Your task to perform on an android device: Is it going to rain today? Image 0: 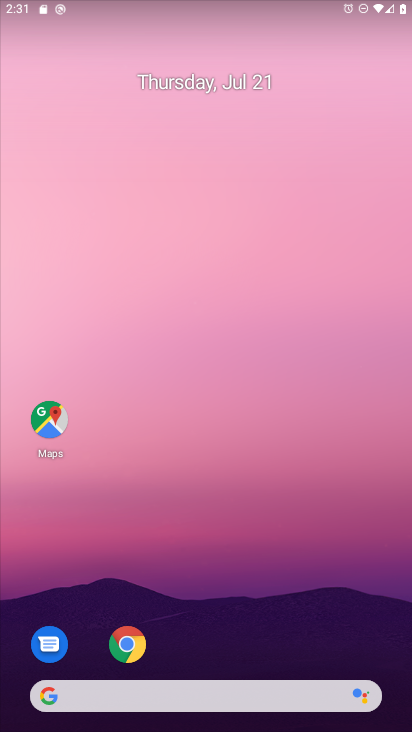
Step 0: drag from (179, 669) to (261, 179)
Your task to perform on an android device: Is it going to rain today? Image 1: 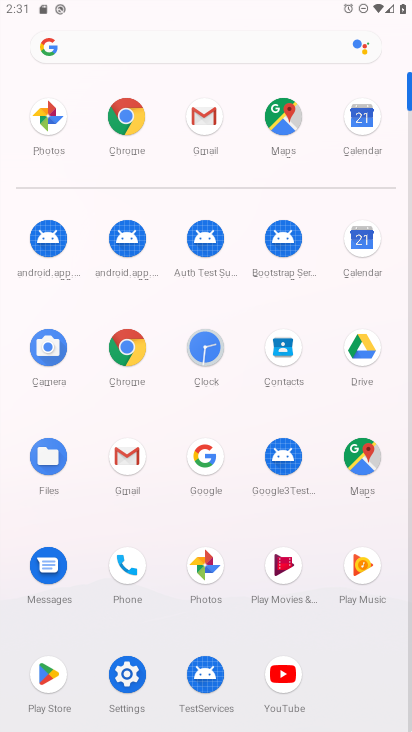
Step 1: click (197, 456)
Your task to perform on an android device: Is it going to rain today? Image 2: 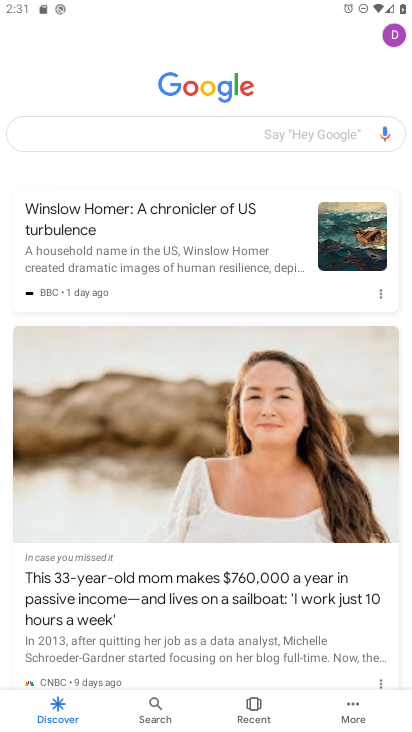
Step 2: click (139, 133)
Your task to perform on an android device: Is it going to rain today? Image 3: 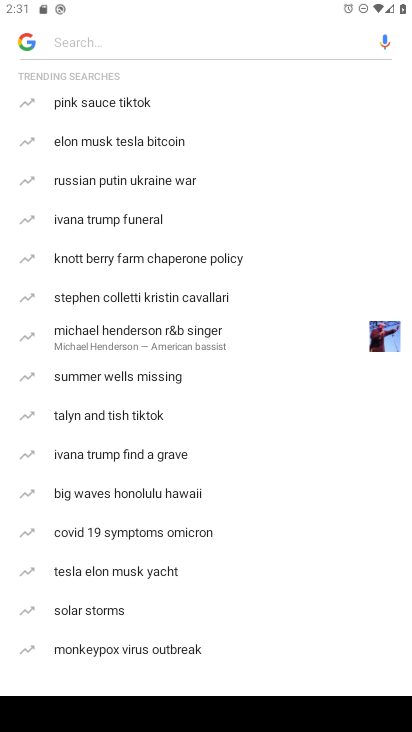
Step 3: drag from (80, 541) to (115, 133)
Your task to perform on an android device: Is it going to rain today? Image 4: 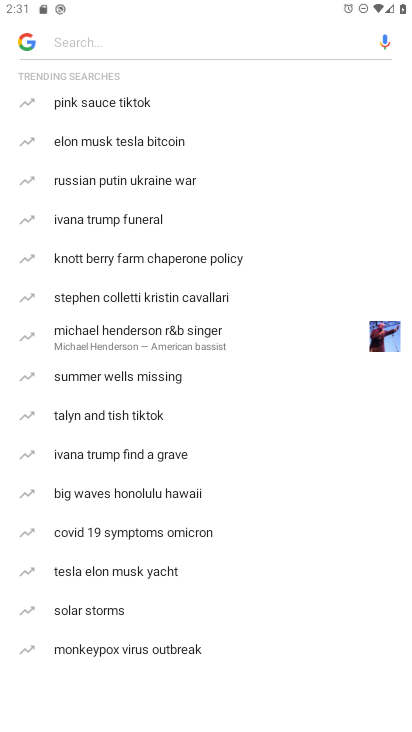
Step 4: drag from (104, 100) to (132, 612)
Your task to perform on an android device: Is it going to rain today? Image 5: 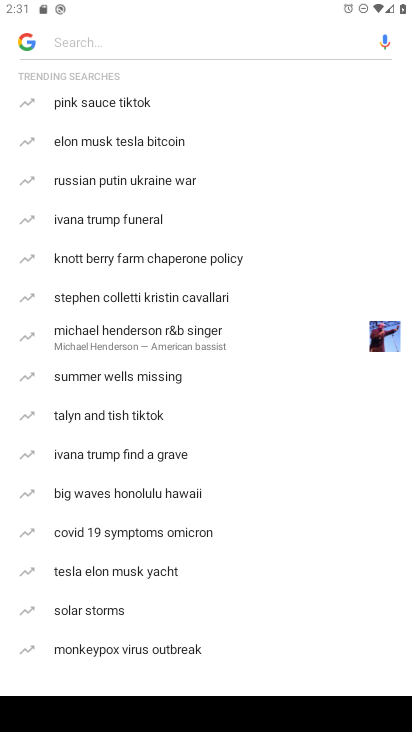
Step 5: type "Is it going to rain today?"
Your task to perform on an android device: Is it going to rain today? Image 6: 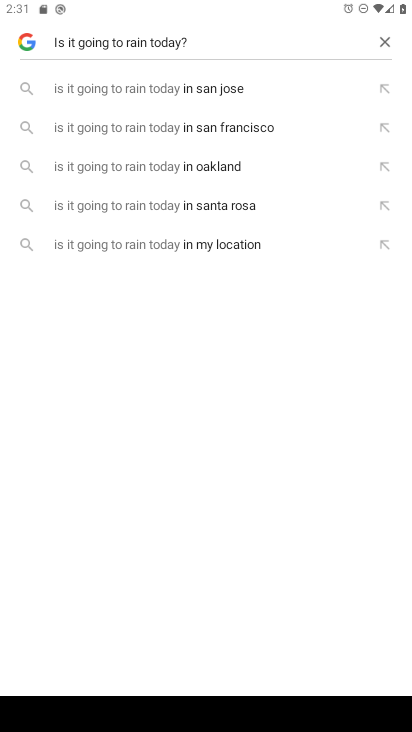
Step 6: click (105, 253)
Your task to perform on an android device: Is it going to rain today? Image 7: 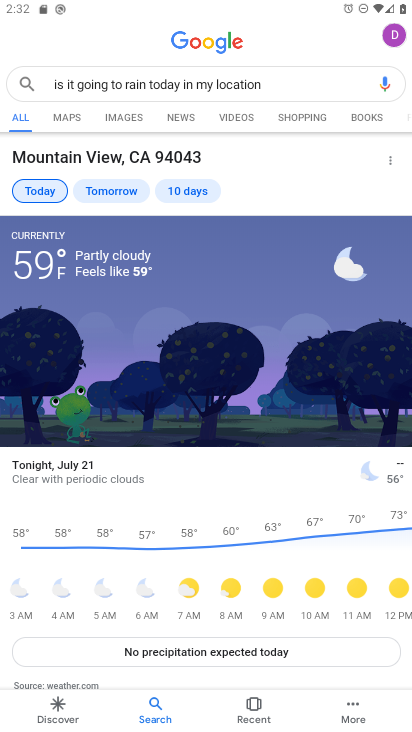
Step 7: task complete